Your task to perform on an android device: Open Maps and search for coffee Image 0: 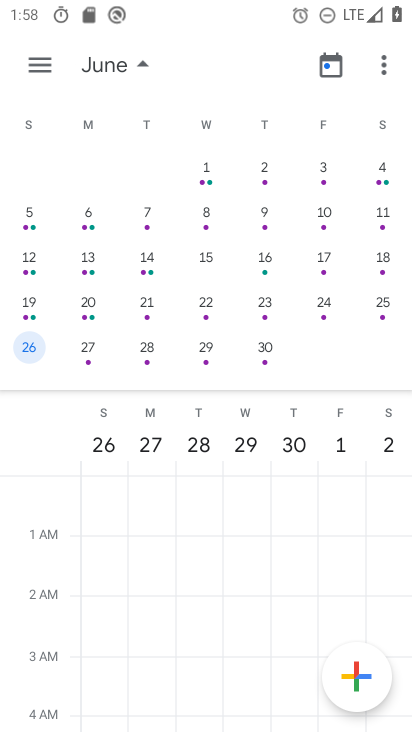
Step 0: press home button
Your task to perform on an android device: Open Maps and search for coffee Image 1: 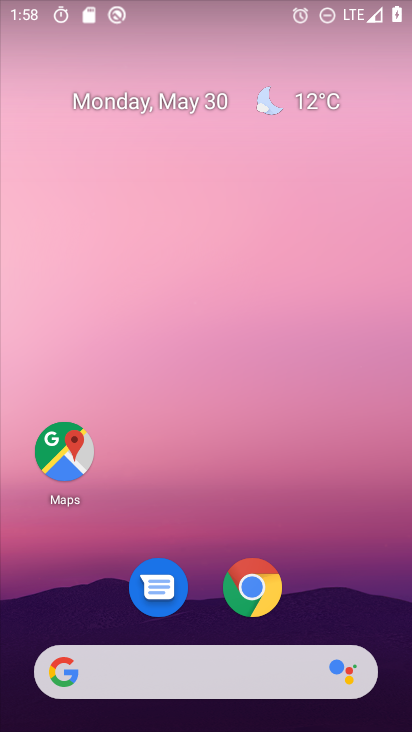
Step 1: click (68, 447)
Your task to perform on an android device: Open Maps and search for coffee Image 2: 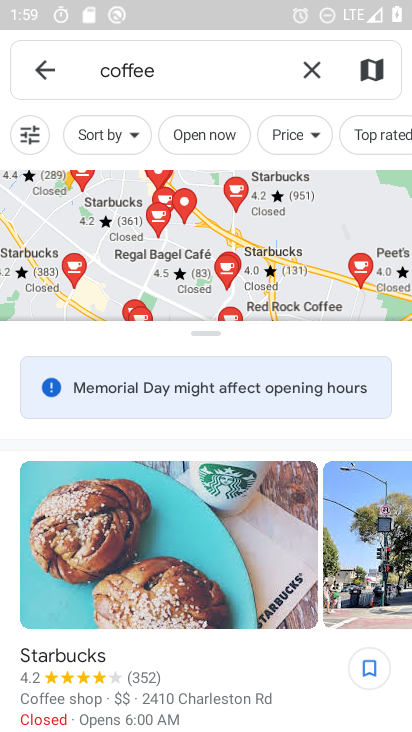
Step 2: task complete